Your task to perform on an android device: Open internet settings Image 0: 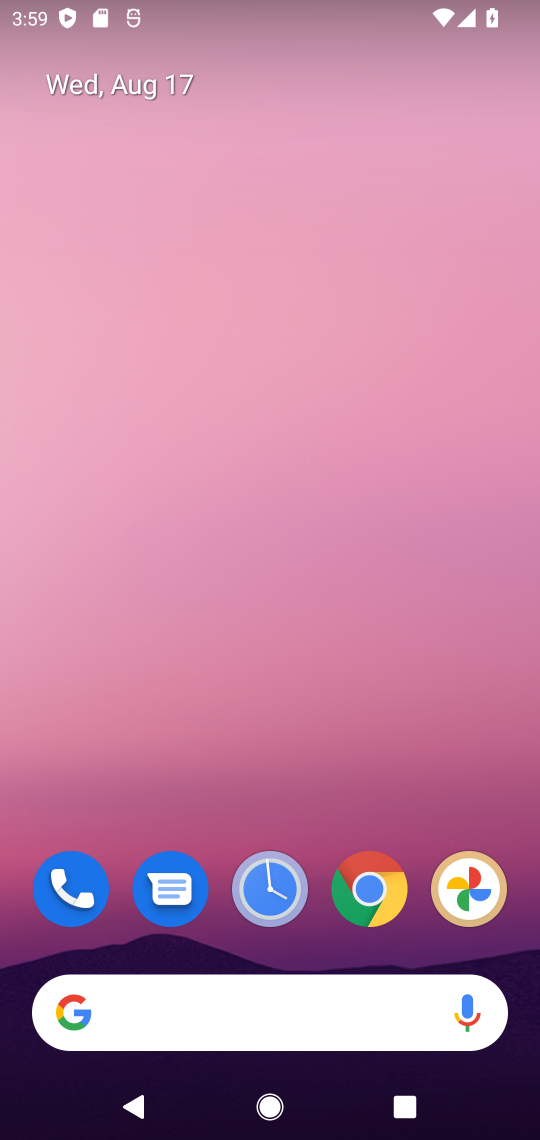
Step 0: drag from (261, 809) to (255, 198)
Your task to perform on an android device: Open internet settings Image 1: 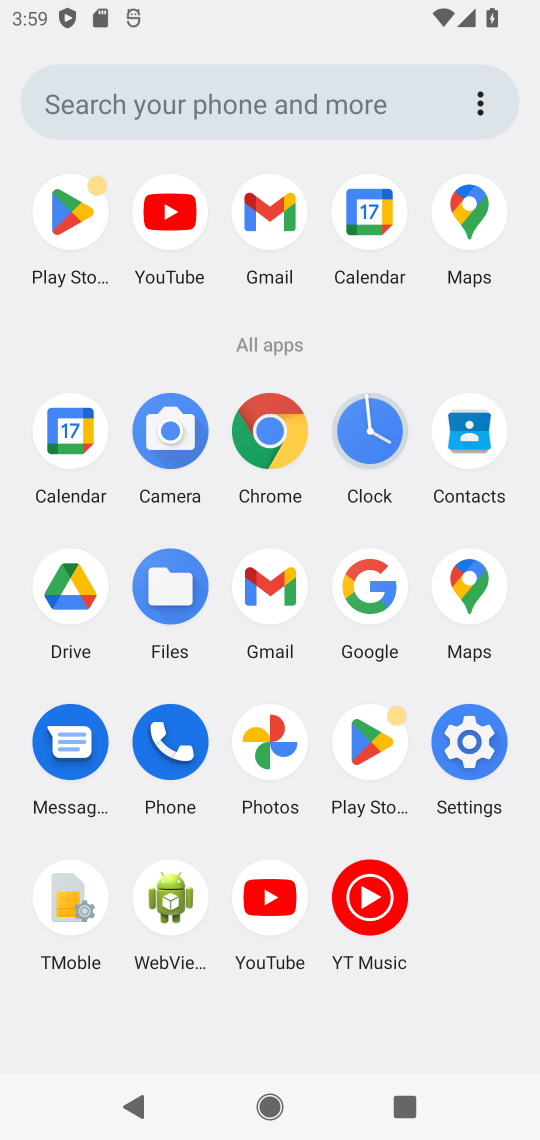
Step 1: click (474, 747)
Your task to perform on an android device: Open internet settings Image 2: 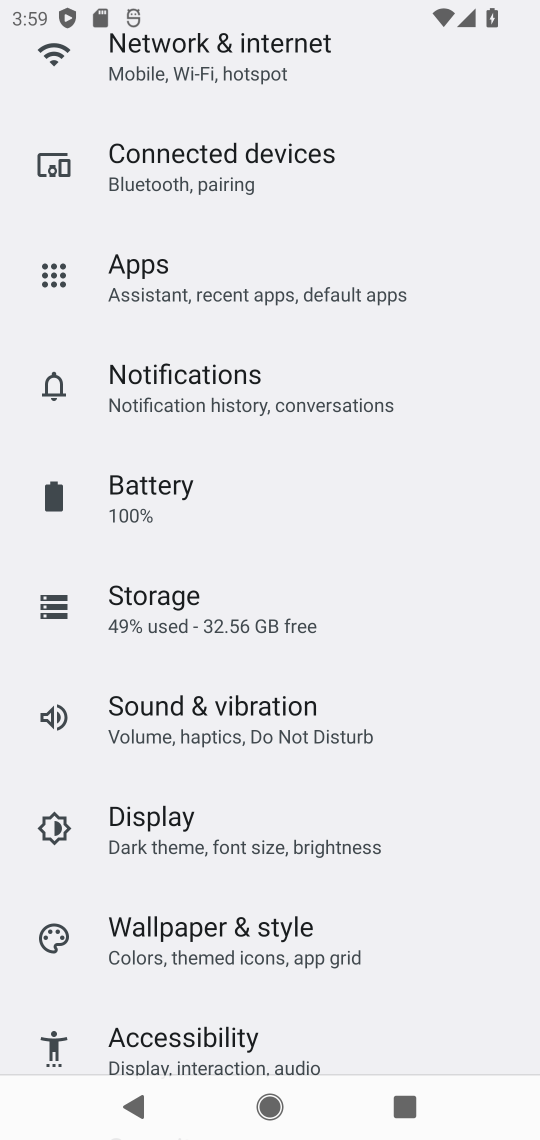
Step 2: click (206, 39)
Your task to perform on an android device: Open internet settings Image 3: 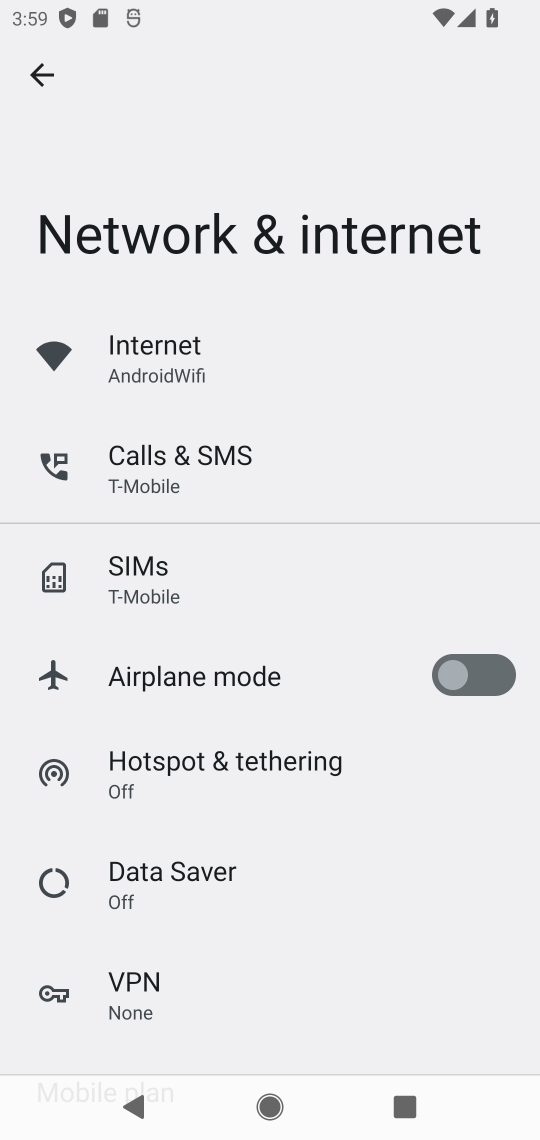
Step 3: click (164, 340)
Your task to perform on an android device: Open internet settings Image 4: 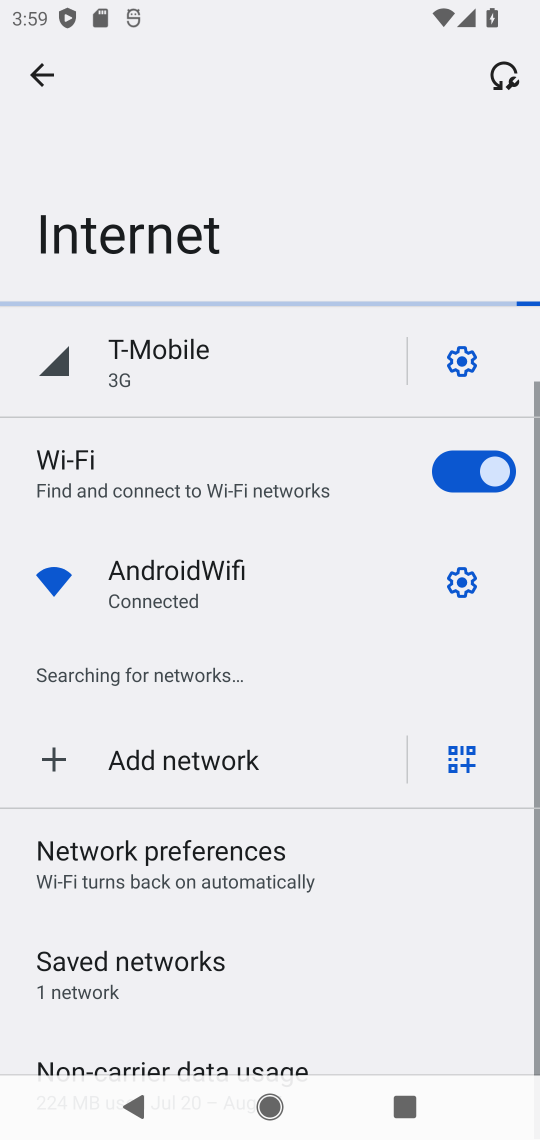
Step 4: task complete